Your task to perform on an android device: Open the calendar and show me this week's events? Image 0: 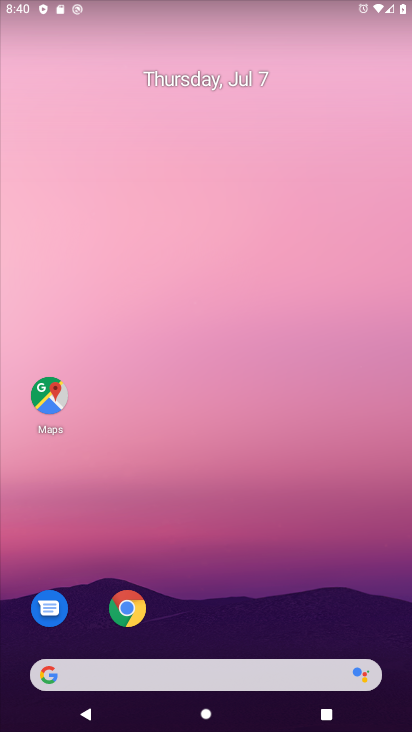
Step 0: drag from (161, 644) to (110, 201)
Your task to perform on an android device: Open the calendar and show me this week's events? Image 1: 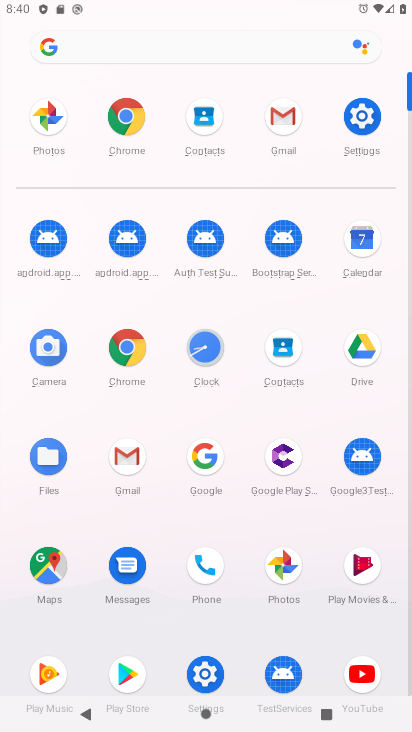
Step 1: click (365, 248)
Your task to perform on an android device: Open the calendar and show me this week's events? Image 2: 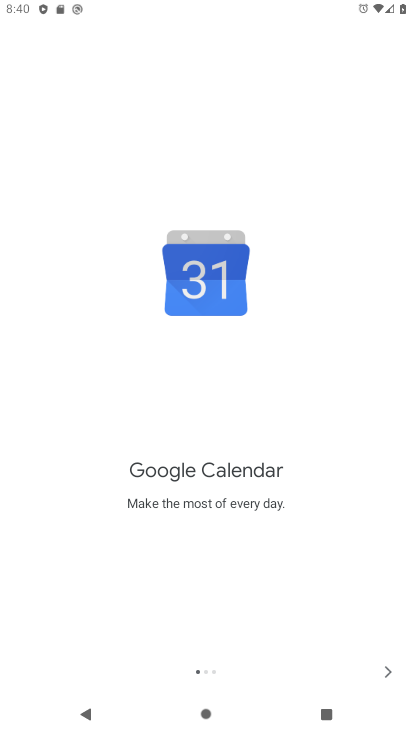
Step 2: click (382, 670)
Your task to perform on an android device: Open the calendar and show me this week's events? Image 3: 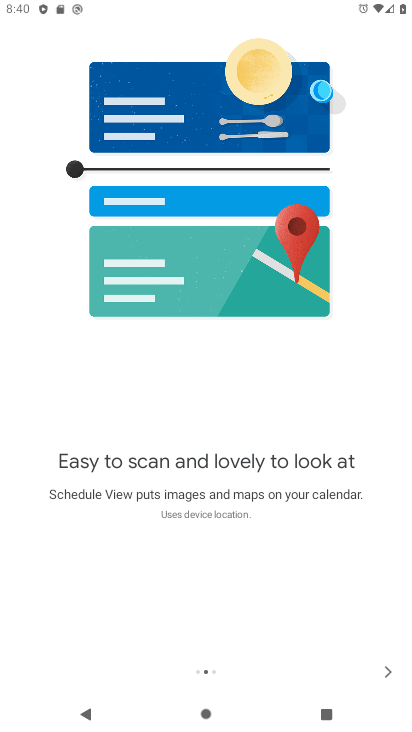
Step 3: click (382, 670)
Your task to perform on an android device: Open the calendar and show me this week's events? Image 4: 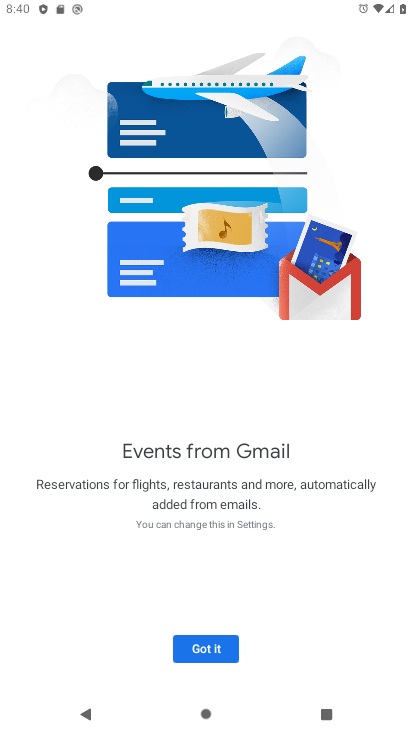
Step 4: click (215, 648)
Your task to perform on an android device: Open the calendar and show me this week's events? Image 5: 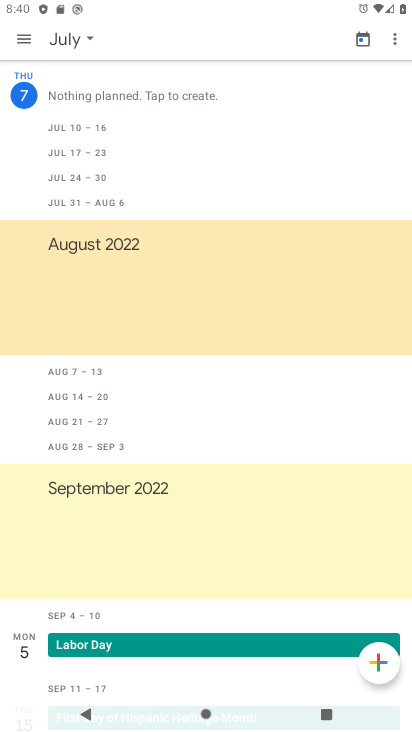
Step 5: click (65, 38)
Your task to perform on an android device: Open the calendar and show me this week's events? Image 6: 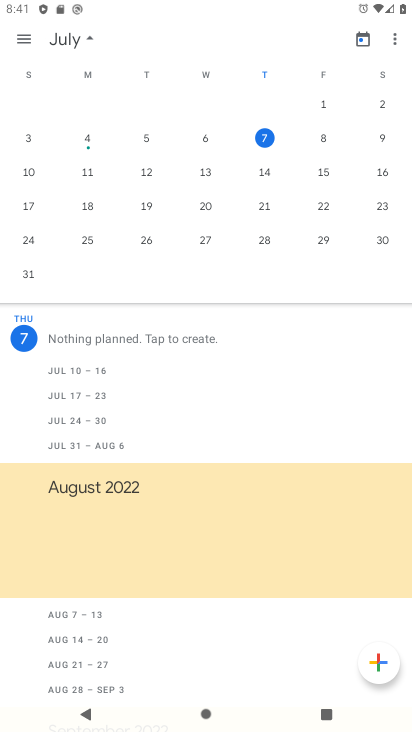
Step 6: drag from (157, 625) to (157, 361)
Your task to perform on an android device: Open the calendar and show me this week's events? Image 7: 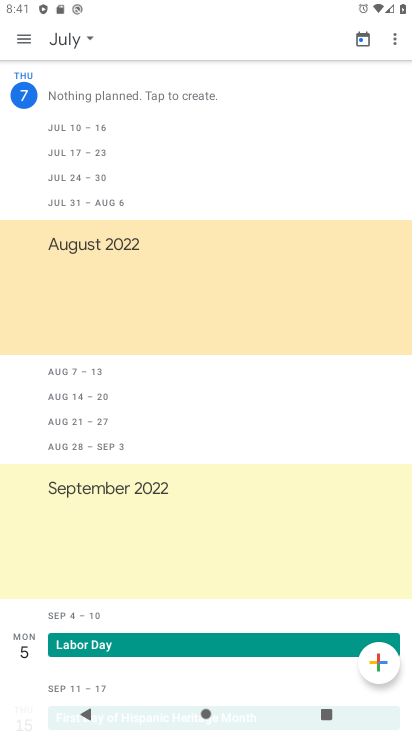
Step 7: drag from (148, 138) to (196, 593)
Your task to perform on an android device: Open the calendar and show me this week's events? Image 8: 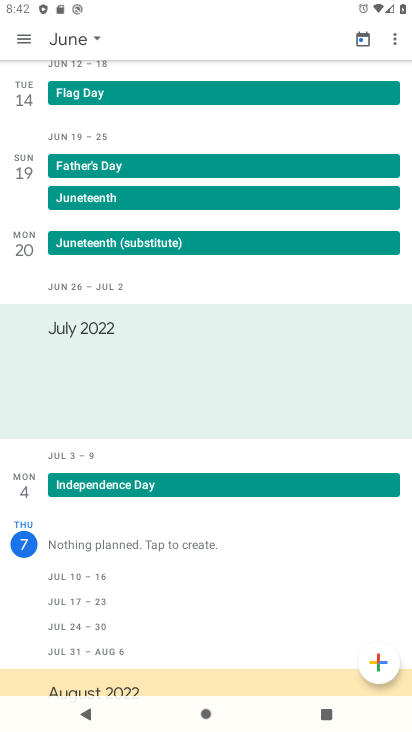
Step 8: click (67, 37)
Your task to perform on an android device: Open the calendar and show me this week's events? Image 9: 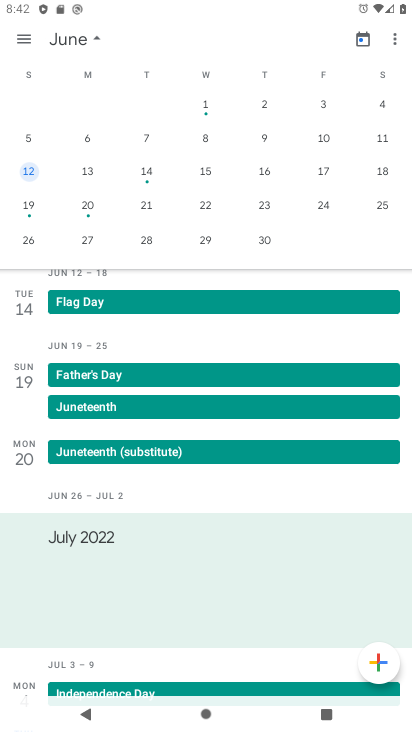
Step 9: drag from (310, 175) to (35, 198)
Your task to perform on an android device: Open the calendar and show me this week's events? Image 10: 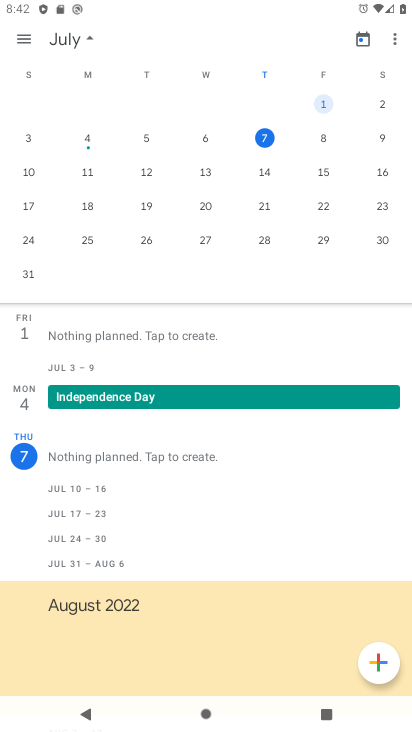
Step 10: click (386, 133)
Your task to perform on an android device: Open the calendar and show me this week's events? Image 11: 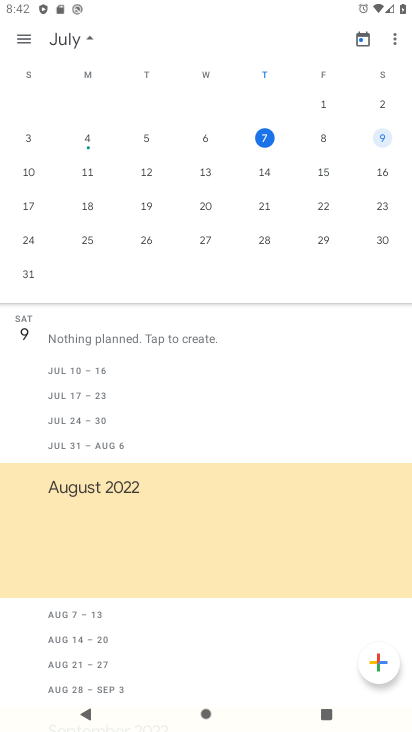
Step 11: task complete